Your task to perform on an android device: Go to Maps Image 0: 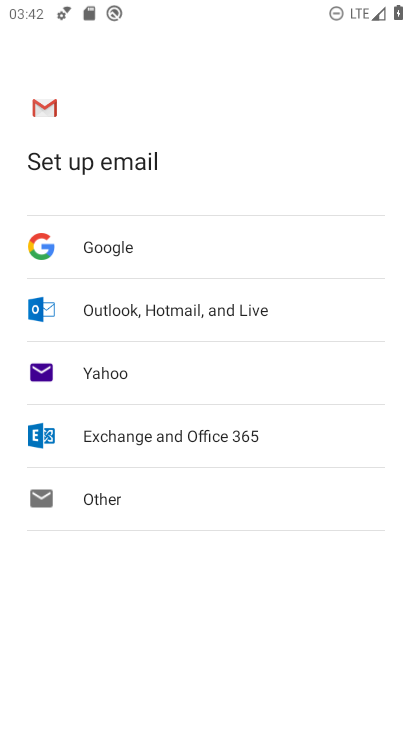
Step 0: press home button
Your task to perform on an android device: Go to Maps Image 1: 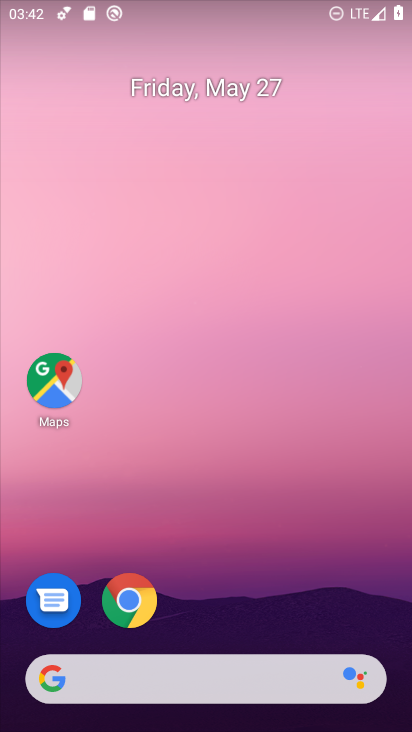
Step 1: drag from (194, 715) to (195, 144)
Your task to perform on an android device: Go to Maps Image 2: 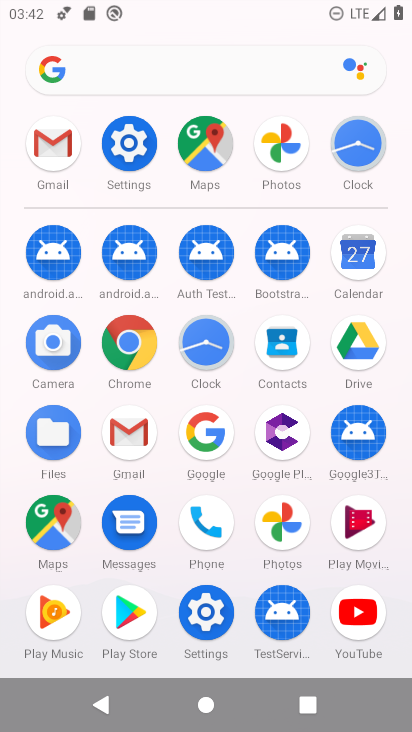
Step 2: click (52, 508)
Your task to perform on an android device: Go to Maps Image 3: 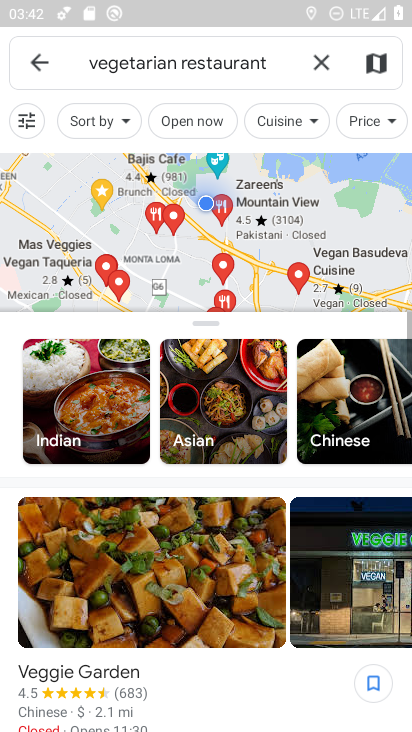
Step 3: task complete